Your task to perform on an android device: Open calendar and show me the third week of next month Image 0: 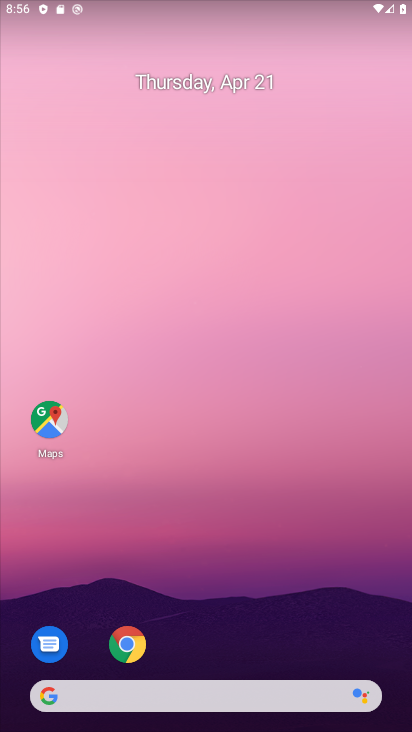
Step 0: drag from (341, 610) to (165, 52)
Your task to perform on an android device: Open calendar and show me the third week of next month Image 1: 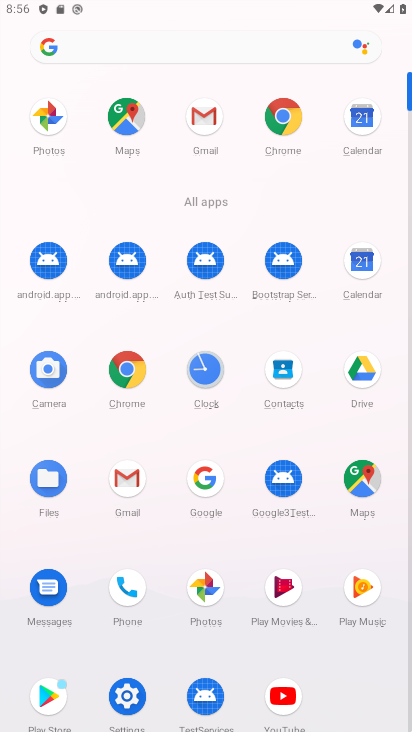
Step 1: click (365, 268)
Your task to perform on an android device: Open calendar and show me the third week of next month Image 2: 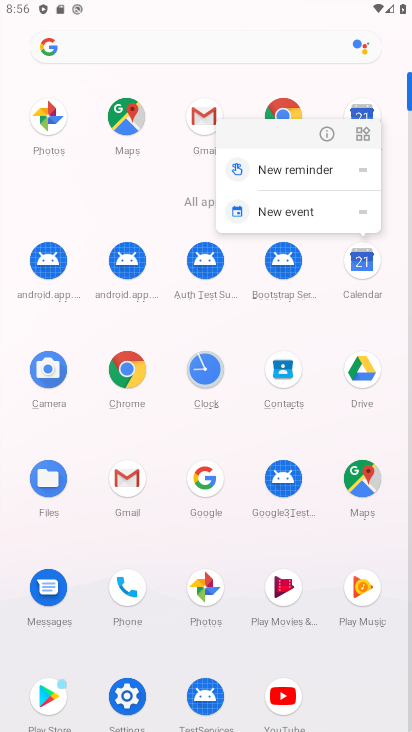
Step 2: click (357, 104)
Your task to perform on an android device: Open calendar and show me the third week of next month Image 3: 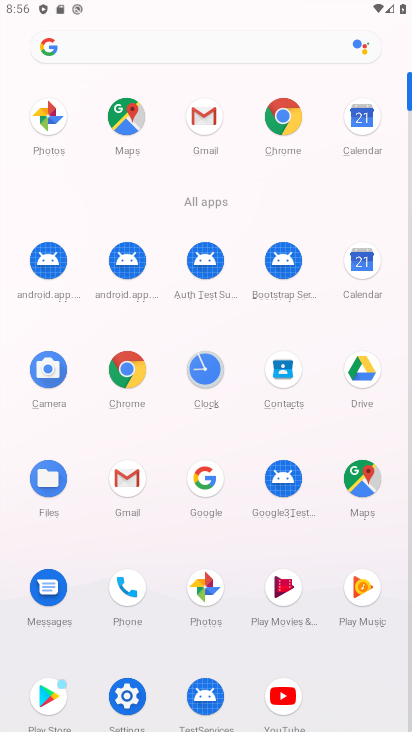
Step 3: click (350, 126)
Your task to perform on an android device: Open calendar and show me the third week of next month Image 4: 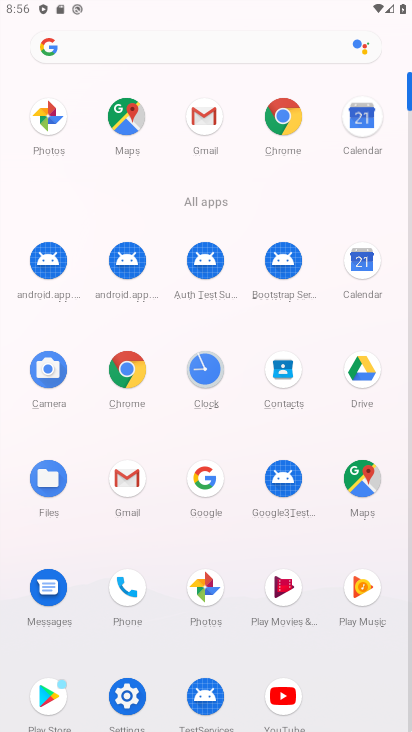
Step 4: click (365, 123)
Your task to perform on an android device: Open calendar and show me the third week of next month Image 5: 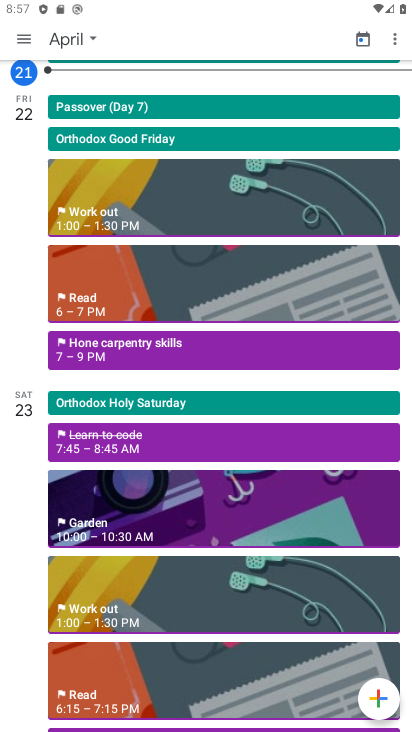
Step 5: click (70, 37)
Your task to perform on an android device: Open calendar and show me the third week of next month Image 6: 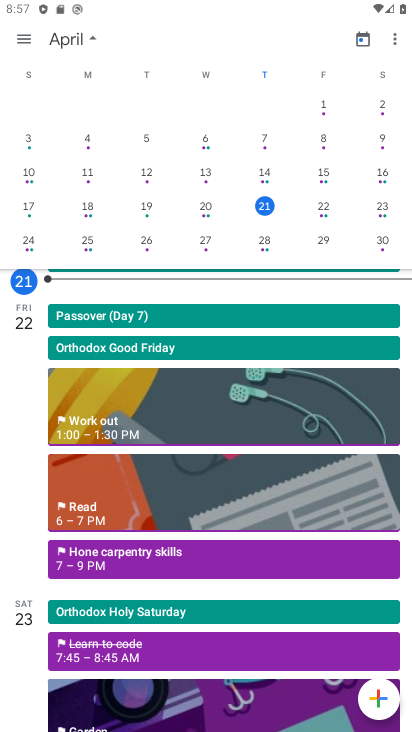
Step 6: drag from (366, 215) to (0, 178)
Your task to perform on an android device: Open calendar and show me the third week of next month Image 7: 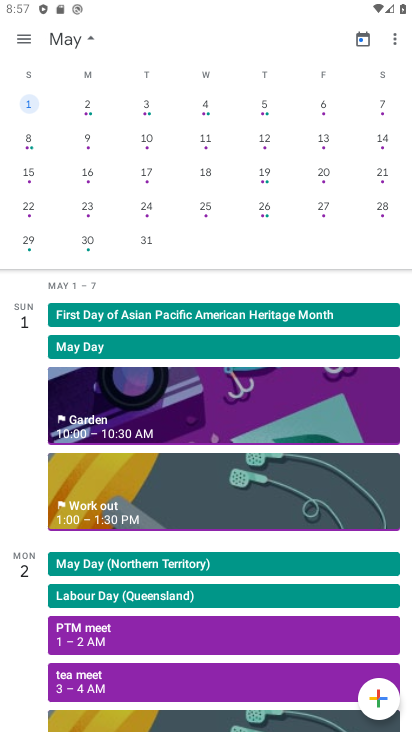
Step 7: click (353, 157)
Your task to perform on an android device: Open calendar and show me the third week of next month Image 8: 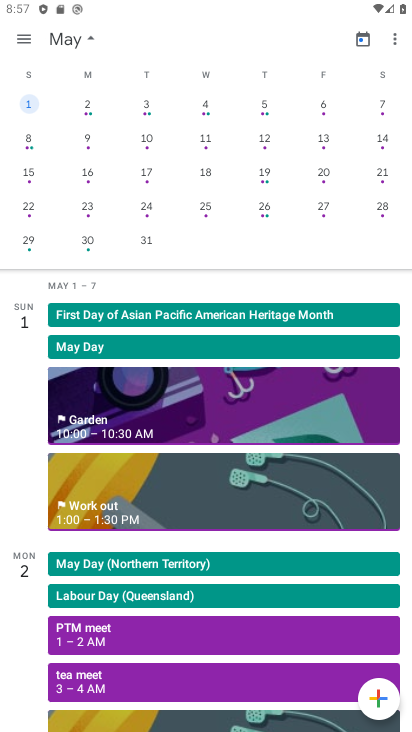
Step 8: click (205, 171)
Your task to perform on an android device: Open calendar and show me the third week of next month Image 9: 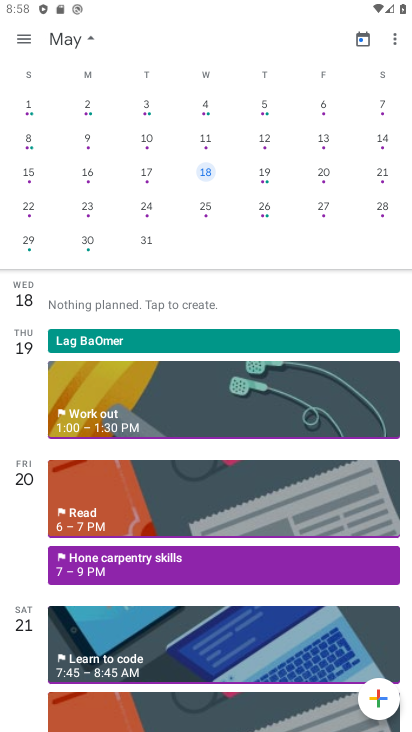
Step 9: task complete